Your task to perform on an android device: turn off priority inbox in the gmail app Image 0: 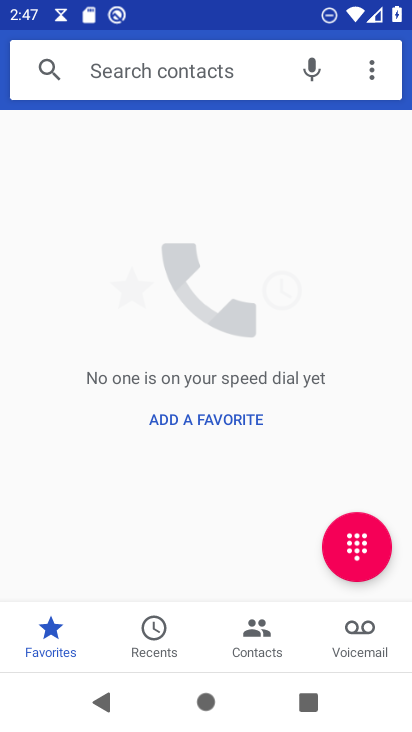
Step 0: press home button
Your task to perform on an android device: turn off priority inbox in the gmail app Image 1: 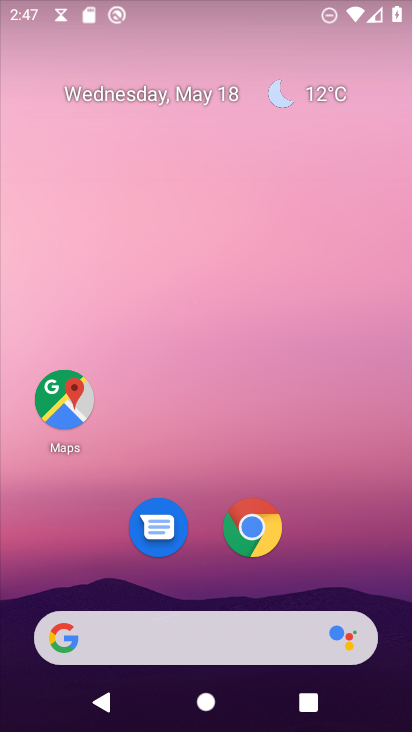
Step 1: drag from (328, 471) to (247, 70)
Your task to perform on an android device: turn off priority inbox in the gmail app Image 2: 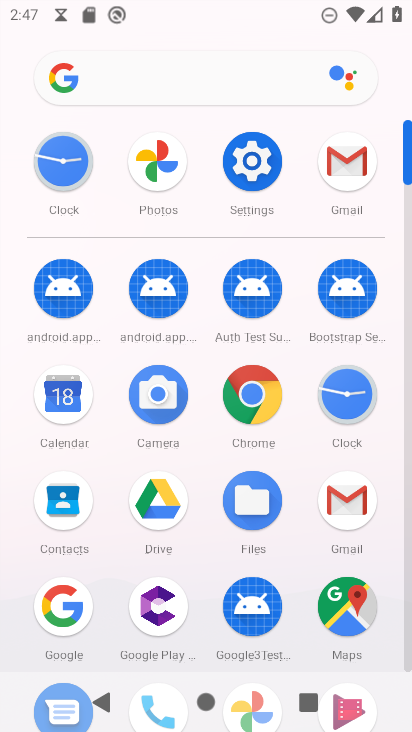
Step 2: click (348, 169)
Your task to perform on an android device: turn off priority inbox in the gmail app Image 3: 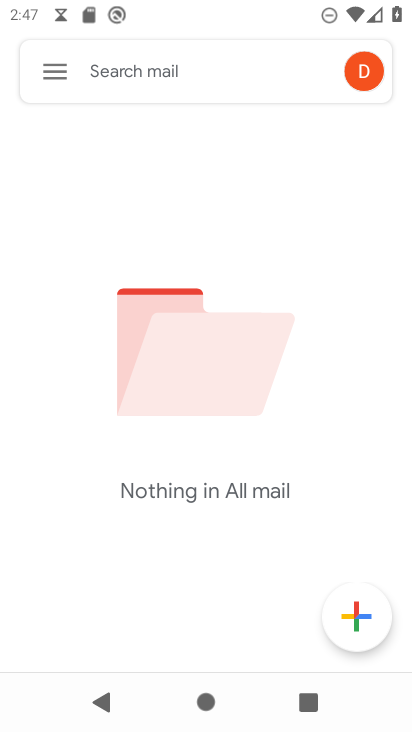
Step 3: click (54, 74)
Your task to perform on an android device: turn off priority inbox in the gmail app Image 4: 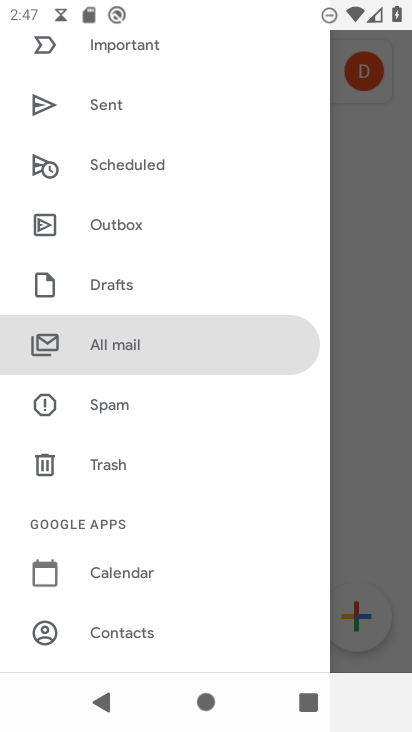
Step 4: drag from (191, 574) to (194, 145)
Your task to perform on an android device: turn off priority inbox in the gmail app Image 5: 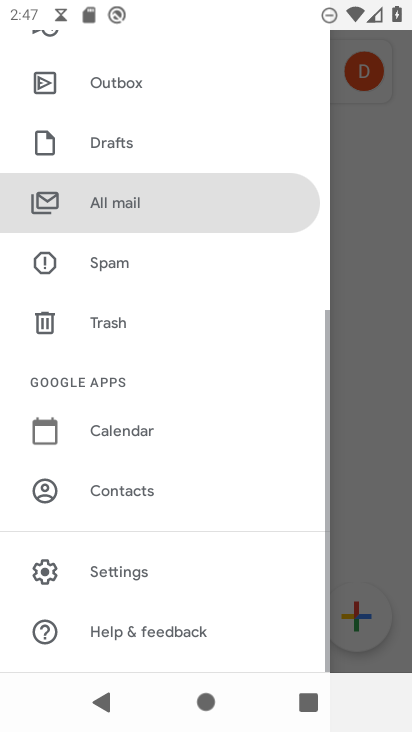
Step 5: click (135, 578)
Your task to perform on an android device: turn off priority inbox in the gmail app Image 6: 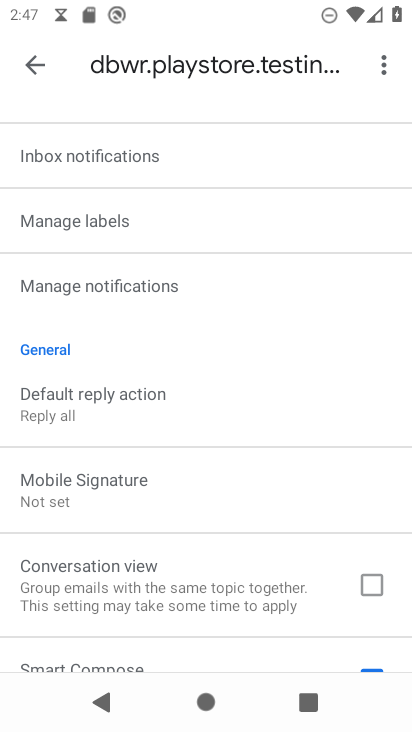
Step 6: drag from (202, 570) to (212, 158)
Your task to perform on an android device: turn off priority inbox in the gmail app Image 7: 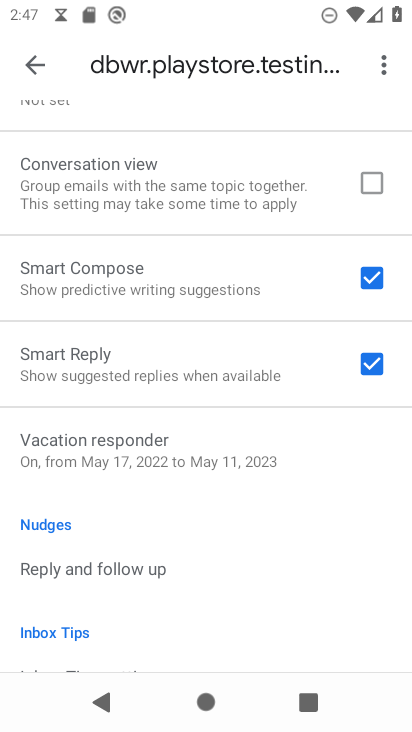
Step 7: drag from (198, 529) to (207, 246)
Your task to perform on an android device: turn off priority inbox in the gmail app Image 8: 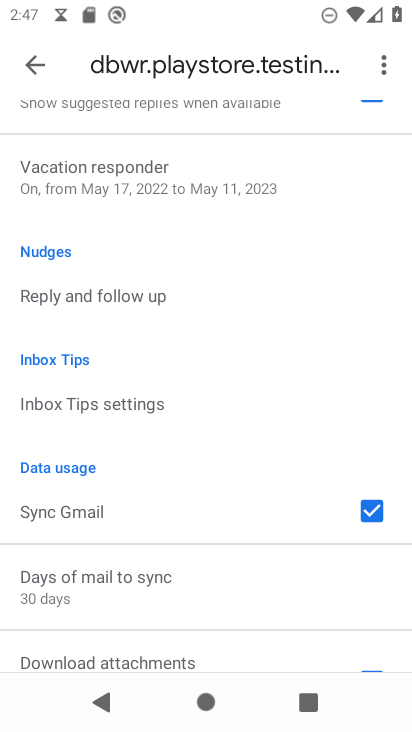
Step 8: drag from (247, 201) to (215, 642)
Your task to perform on an android device: turn off priority inbox in the gmail app Image 9: 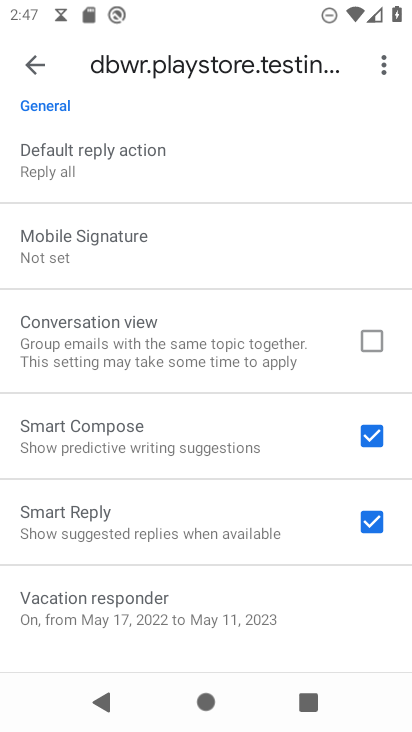
Step 9: drag from (161, 182) to (171, 605)
Your task to perform on an android device: turn off priority inbox in the gmail app Image 10: 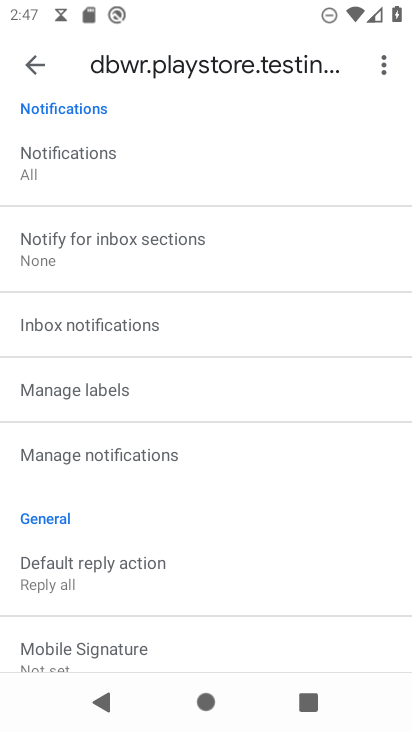
Step 10: drag from (164, 200) to (148, 529)
Your task to perform on an android device: turn off priority inbox in the gmail app Image 11: 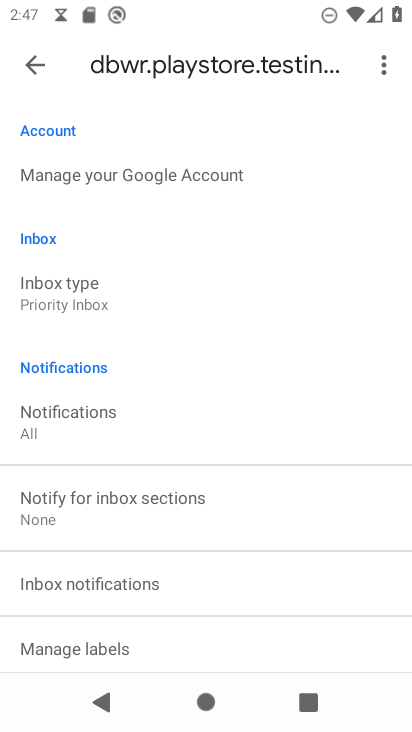
Step 11: click (85, 283)
Your task to perform on an android device: turn off priority inbox in the gmail app Image 12: 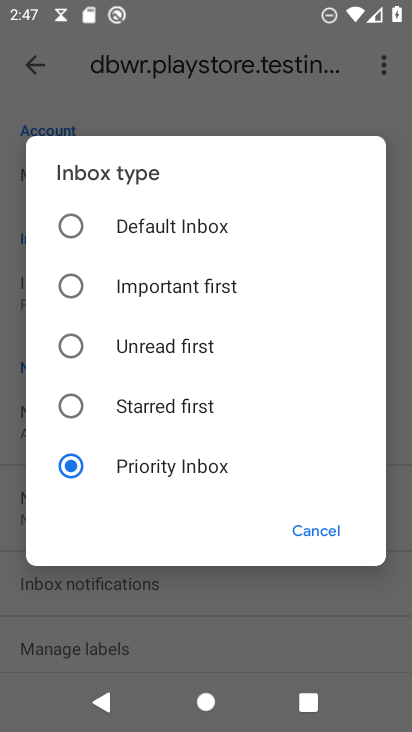
Step 12: click (185, 220)
Your task to perform on an android device: turn off priority inbox in the gmail app Image 13: 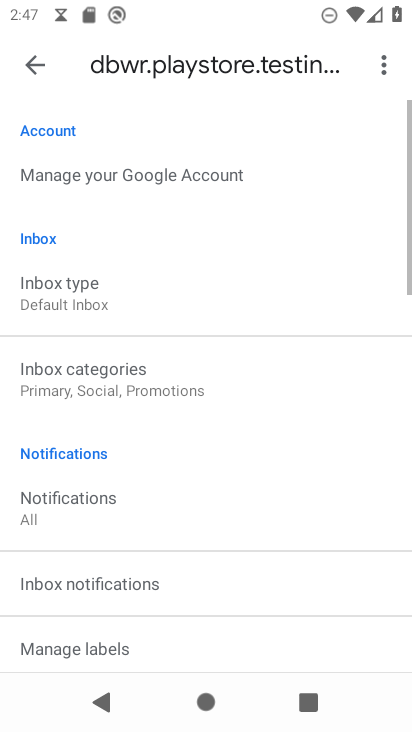
Step 13: task complete